Your task to perform on an android device: snooze an email in the gmail app Image 0: 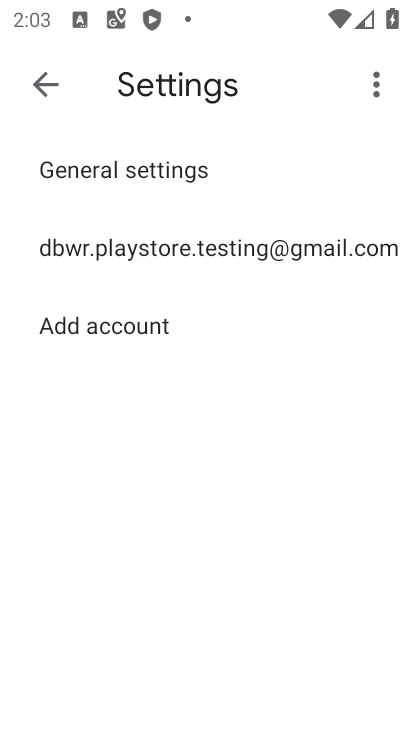
Step 0: press home button
Your task to perform on an android device: snooze an email in the gmail app Image 1: 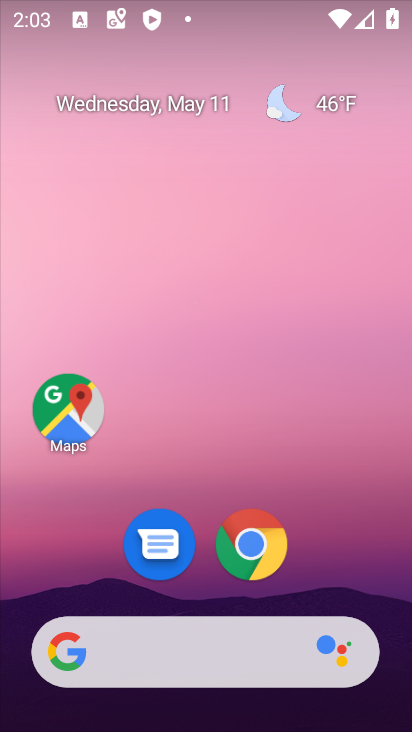
Step 1: drag from (394, 627) to (280, 73)
Your task to perform on an android device: snooze an email in the gmail app Image 2: 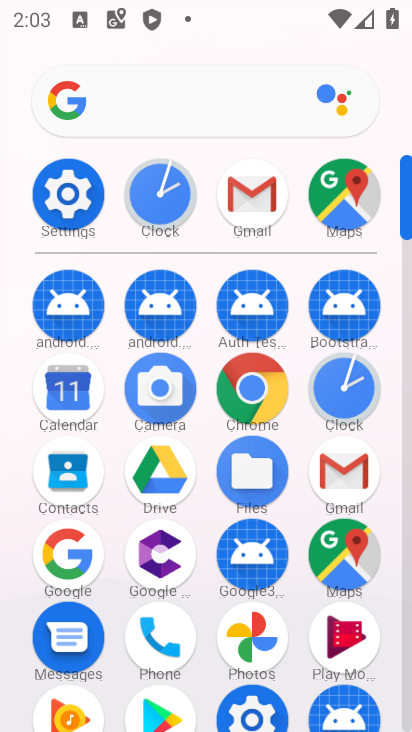
Step 2: click (408, 684)
Your task to perform on an android device: snooze an email in the gmail app Image 3: 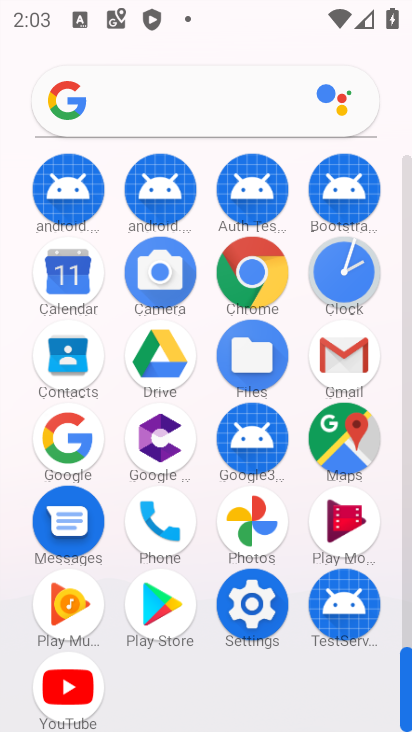
Step 3: click (341, 355)
Your task to perform on an android device: snooze an email in the gmail app Image 4: 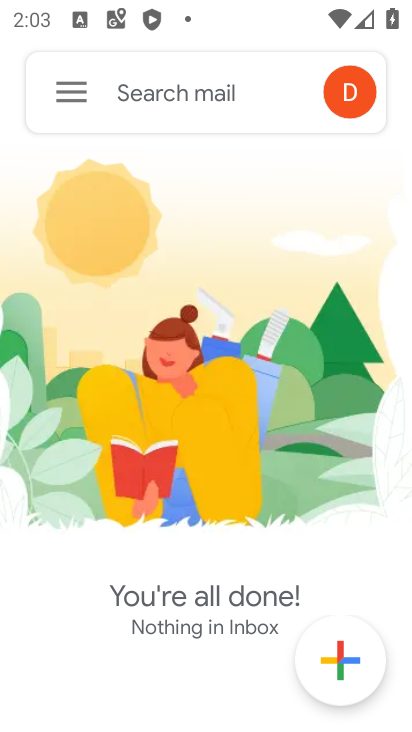
Step 4: click (66, 85)
Your task to perform on an android device: snooze an email in the gmail app Image 5: 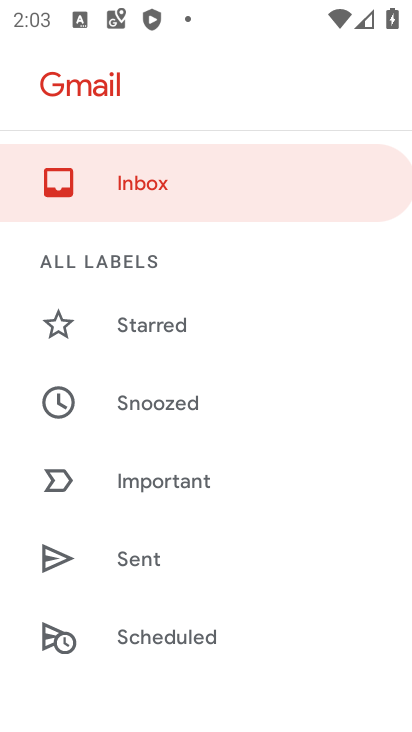
Step 5: drag from (253, 609) to (268, 348)
Your task to perform on an android device: snooze an email in the gmail app Image 6: 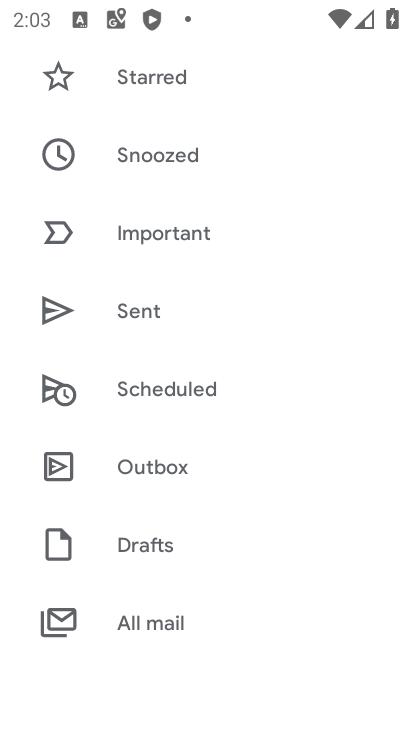
Step 6: click (162, 613)
Your task to perform on an android device: snooze an email in the gmail app Image 7: 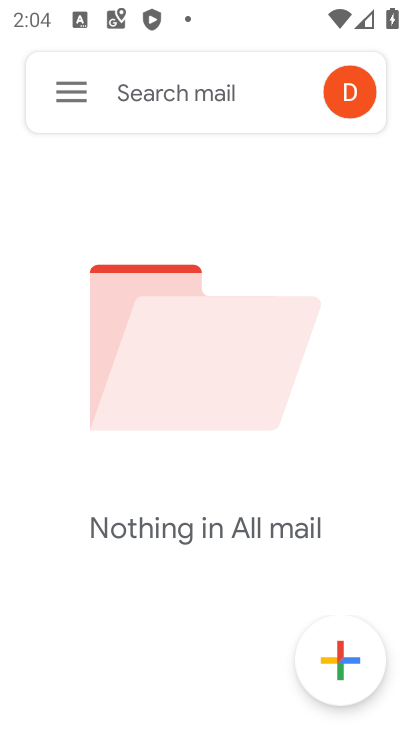
Step 7: task complete